Your task to perform on an android device: turn off wifi Image 0: 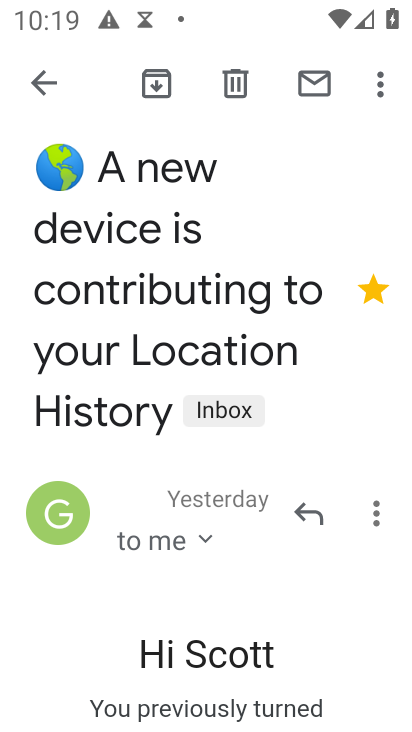
Step 0: press home button
Your task to perform on an android device: turn off wifi Image 1: 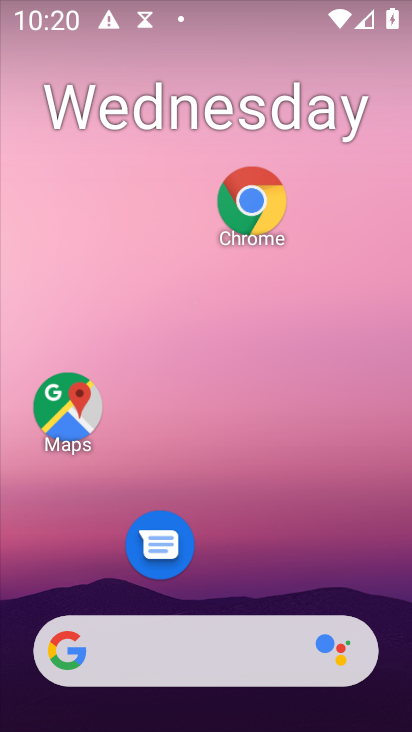
Step 1: drag from (294, 581) to (112, 18)
Your task to perform on an android device: turn off wifi Image 2: 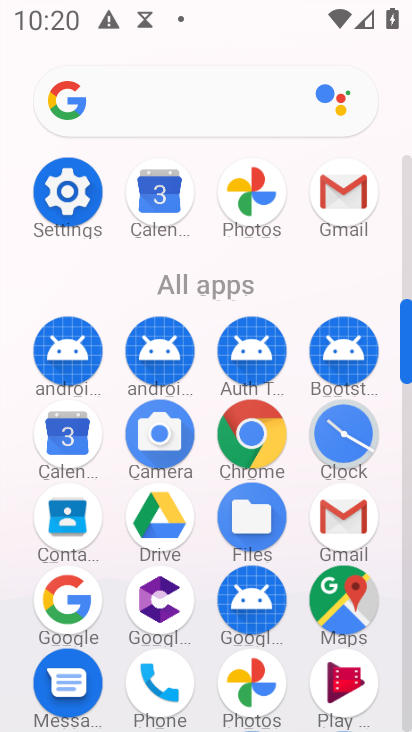
Step 2: click (75, 197)
Your task to perform on an android device: turn off wifi Image 3: 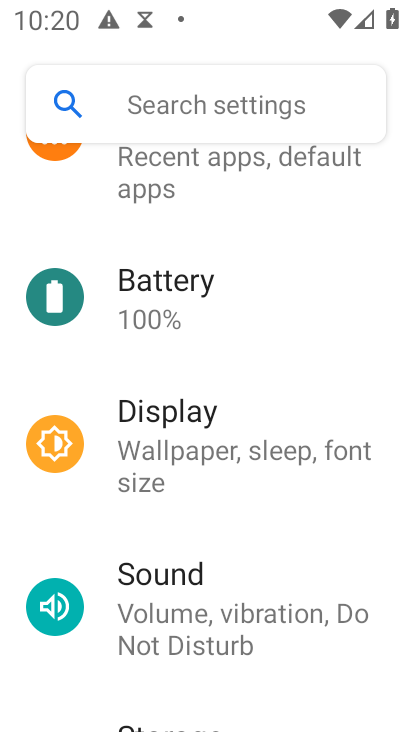
Step 3: drag from (160, 276) to (216, 461)
Your task to perform on an android device: turn off wifi Image 4: 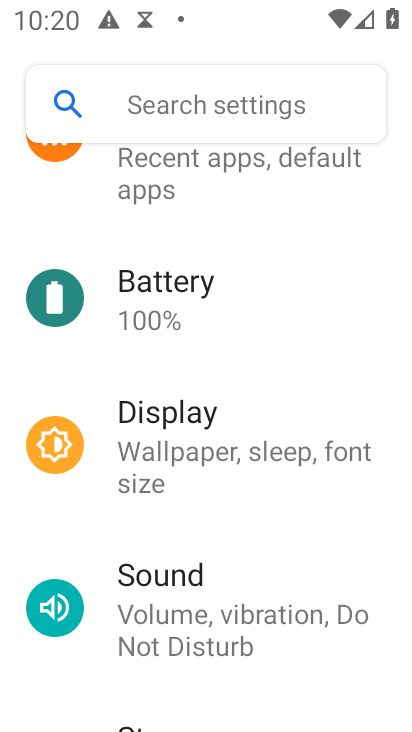
Step 4: drag from (257, 279) to (347, 611)
Your task to perform on an android device: turn off wifi Image 5: 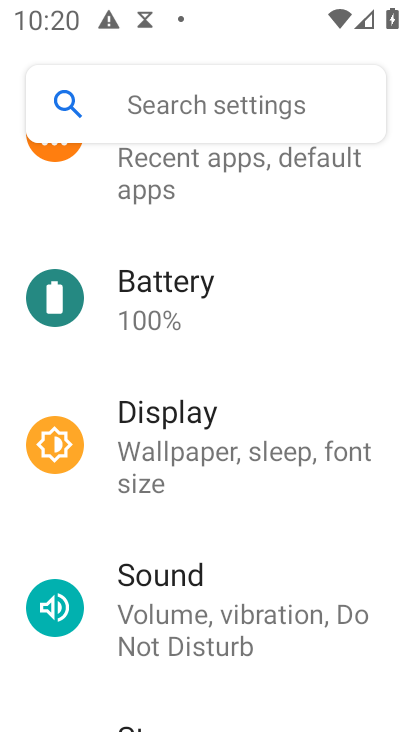
Step 5: drag from (282, 300) to (308, 673)
Your task to perform on an android device: turn off wifi Image 6: 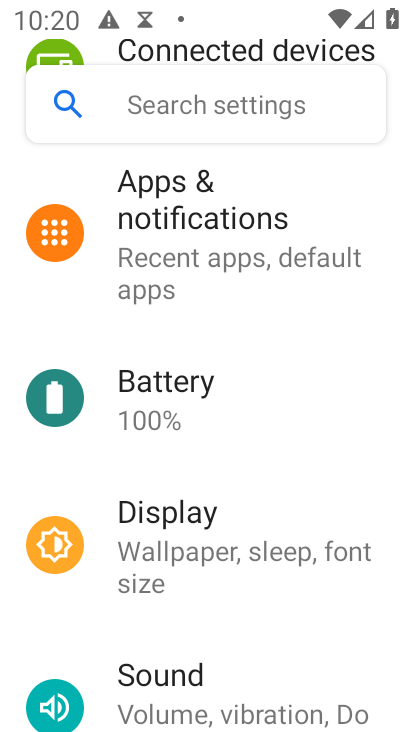
Step 6: drag from (248, 243) to (323, 559)
Your task to perform on an android device: turn off wifi Image 7: 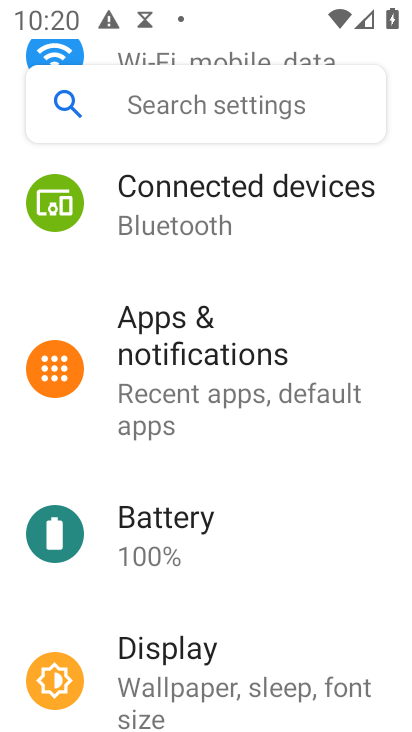
Step 7: drag from (263, 329) to (343, 655)
Your task to perform on an android device: turn off wifi Image 8: 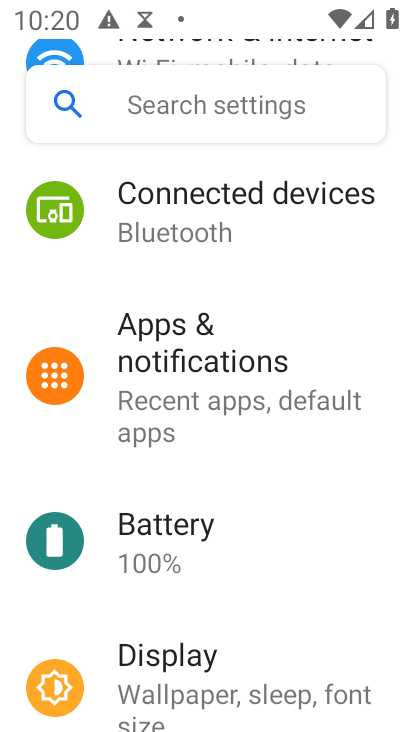
Step 8: drag from (220, 230) to (257, 437)
Your task to perform on an android device: turn off wifi Image 9: 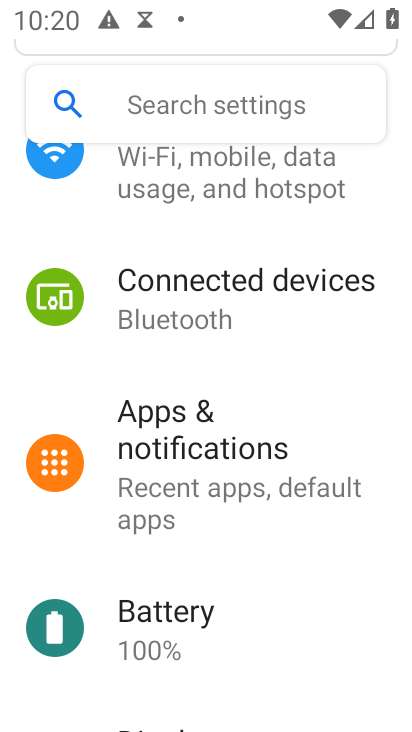
Step 9: click (259, 183)
Your task to perform on an android device: turn off wifi Image 10: 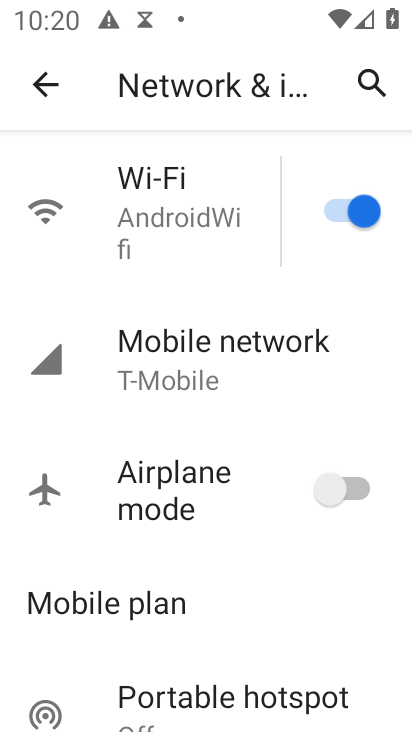
Step 10: click (356, 214)
Your task to perform on an android device: turn off wifi Image 11: 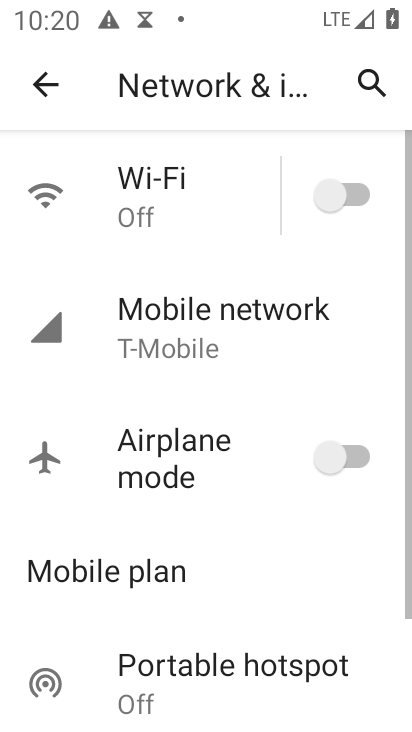
Step 11: task complete